Your task to perform on an android device: Open eBay Image 0: 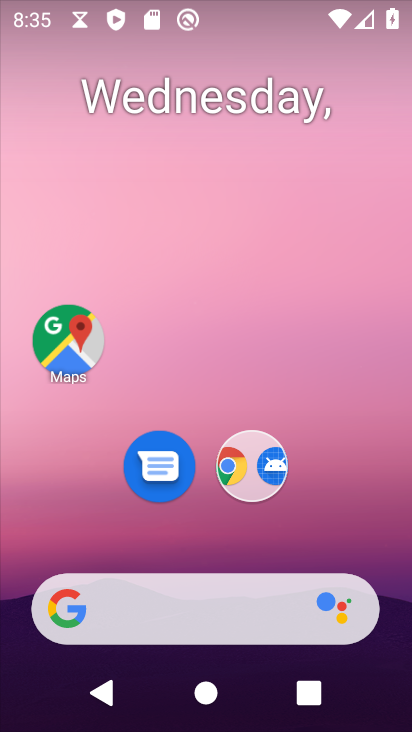
Step 0: drag from (326, 525) to (264, 21)
Your task to perform on an android device: Open eBay Image 1: 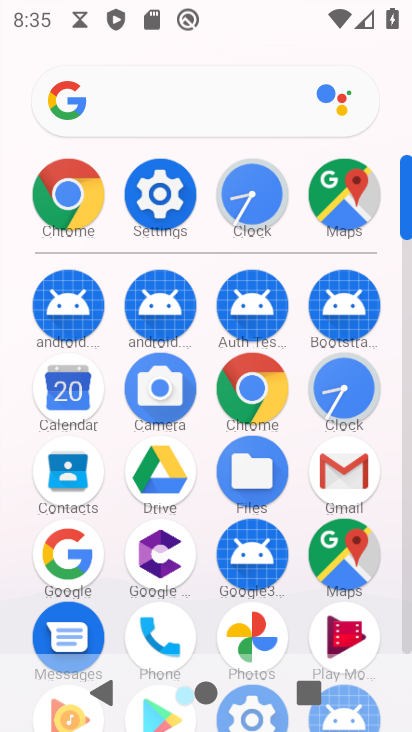
Step 1: click (55, 187)
Your task to perform on an android device: Open eBay Image 2: 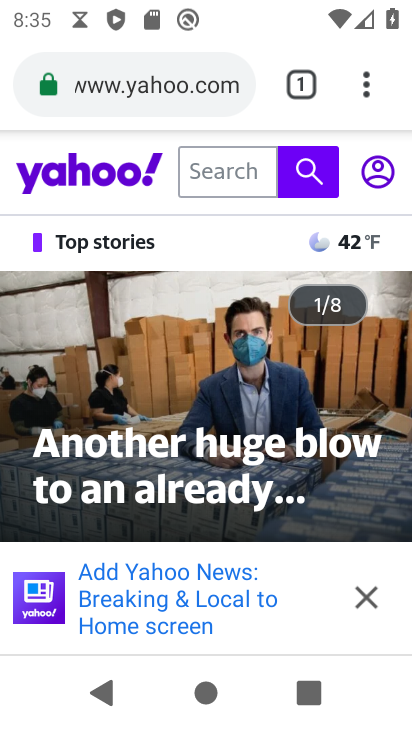
Step 2: click (188, 83)
Your task to perform on an android device: Open eBay Image 3: 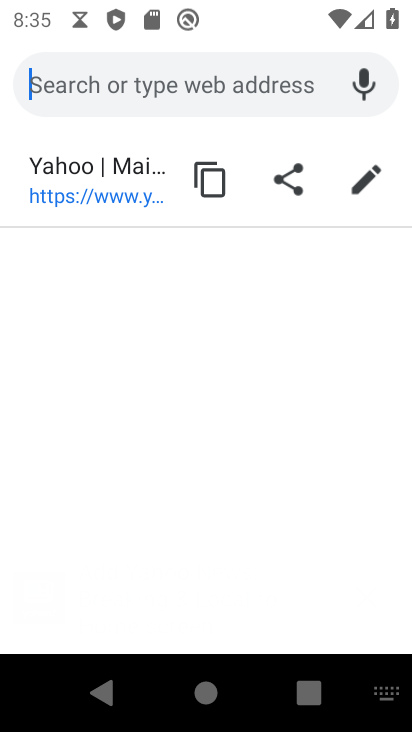
Step 3: type "ebay"
Your task to perform on an android device: Open eBay Image 4: 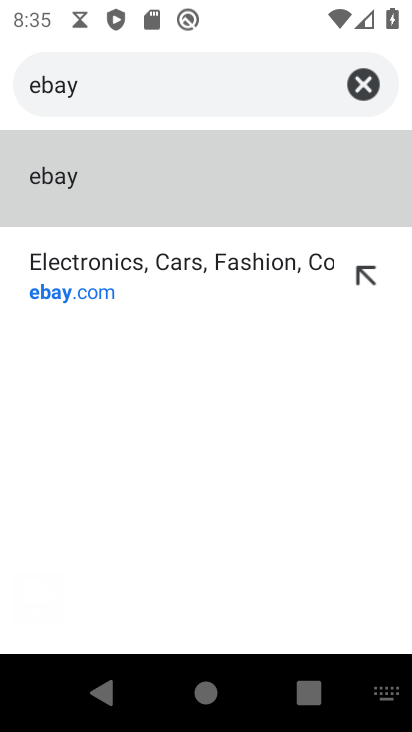
Step 4: click (55, 170)
Your task to perform on an android device: Open eBay Image 5: 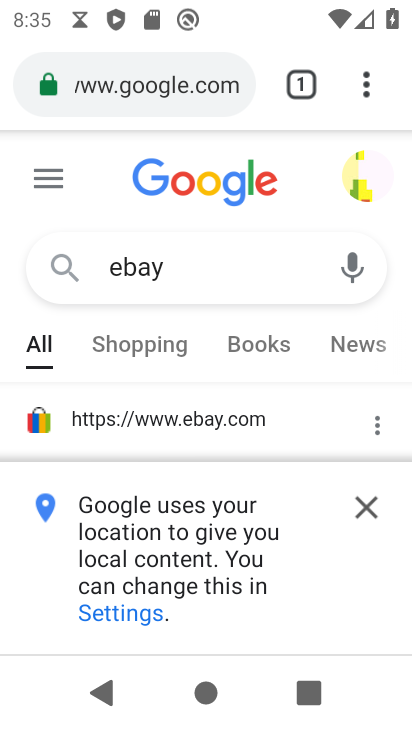
Step 5: drag from (129, 333) to (125, 144)
Your task to perform on an android device: Open eBay Image 6: 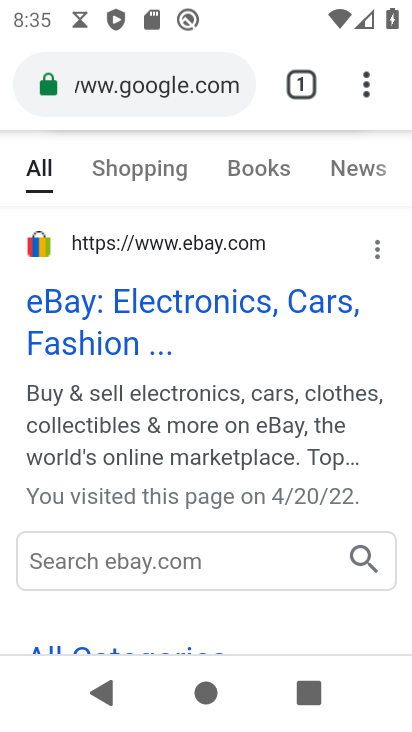
Step 6: click (145, 299)
Your task to perform on an android device: Open eBay Image 7: 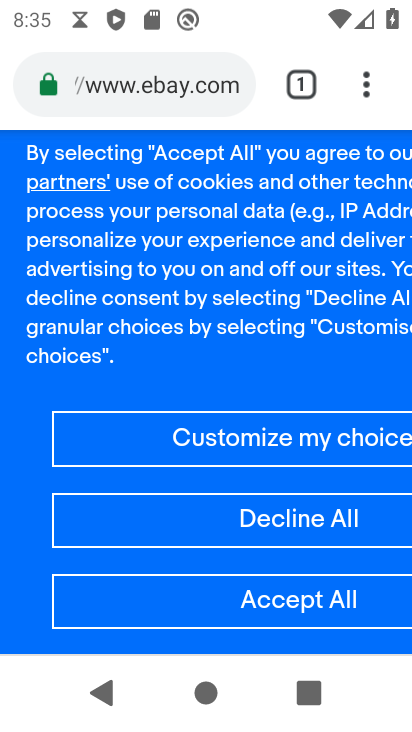
Step 7: task complete